Your task to perform on an android device: Search for Mexican restaurants on Maps Image 0: 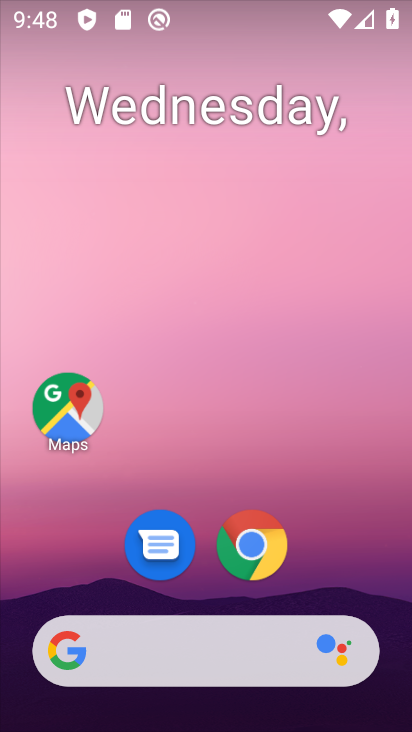
Step 0: click (62, 397)
Your task to perform on an android device: Search for Mexican restaurants on Maps Image 1: 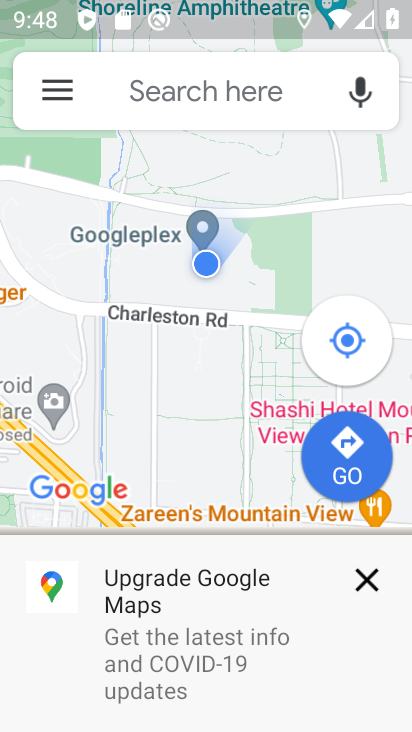
Step 1: click (168, 71)
Your task to perform on an android device: Search for Mexican restaurants on Maps Image 2: 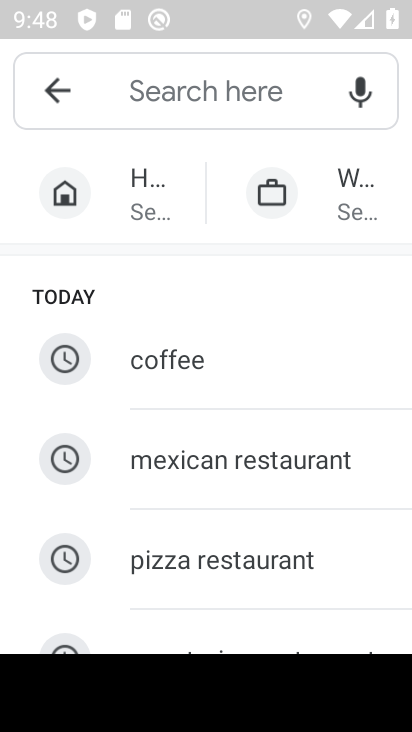
Step 2: click (267, 450)
Your task to perform on an android device: Search for Mexican restaurants on Maps Image 3: 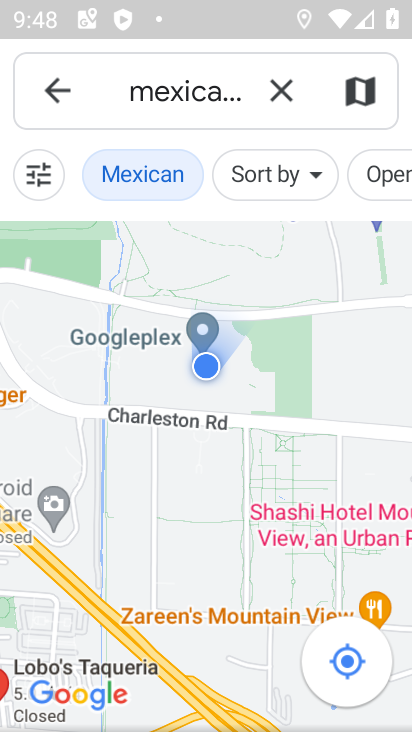
Step 3: task complete